Your task to perform on an android device: Open Google Chrome and click the shortcut for Amazon.com Image 0: 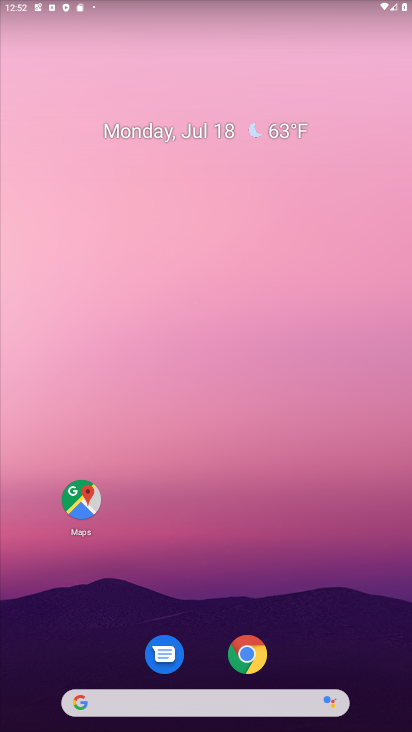
Step 0: click (259, 664)
Your task to perform on an android device: Open Google Chrome and click the shortcut for Amazon.com Image 1: 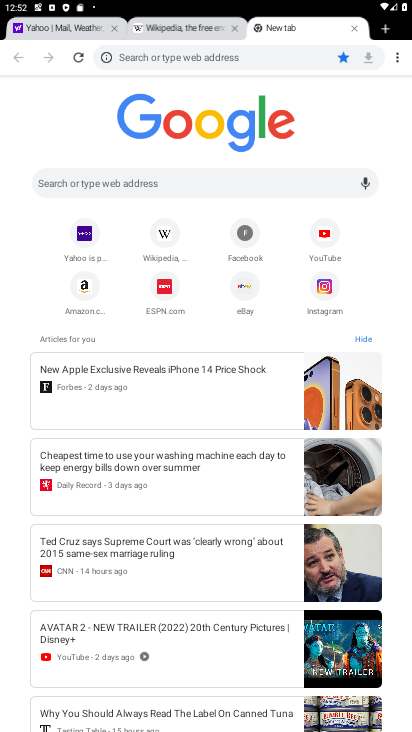
Step 1: click (62, 296)
Your task to perform on an android device: Open Google Chrome and click the shortcut for Amazon.com Image 2: 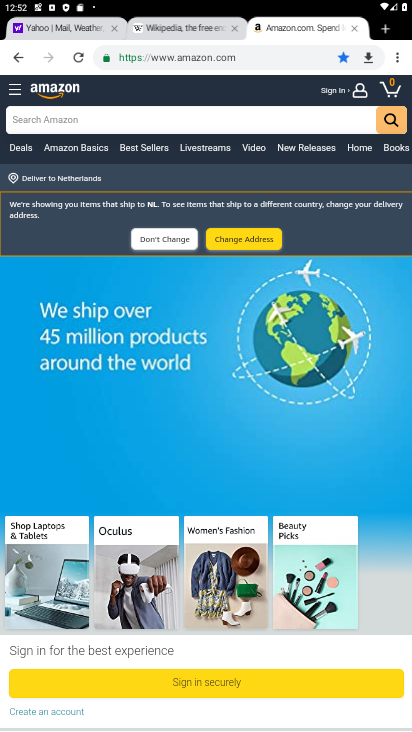
Step 2: task complete